Your task to perform on an android device: Open the web browser Image 0: 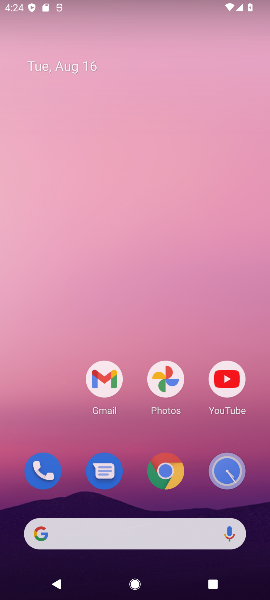
Step 0: drag from (200, 462) to (91, 10)
Your task to perform on an android device: Open the web browser Image 1: 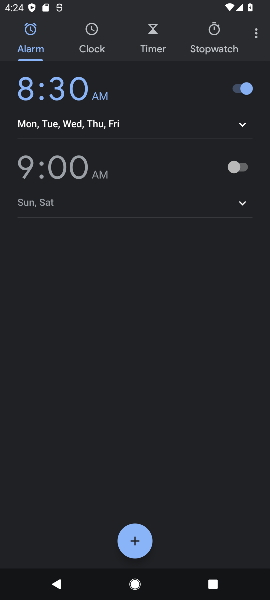
Step 1: press home button
Your task to perform on an android device: Open the web browser Image 2: 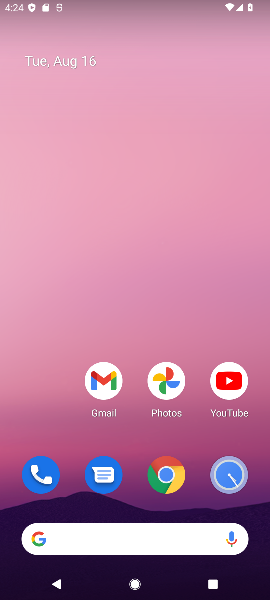
Step 2: drag from (247, 529) to (113, 33)
Your task to perform on an android device: Open the web browser Image 3: 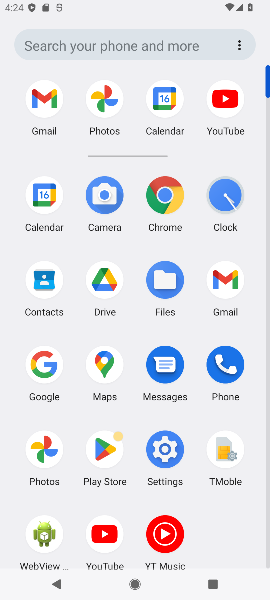
Step 3: click (61, 371)
Your task to perform on an android device: Open the web browser Image 4: 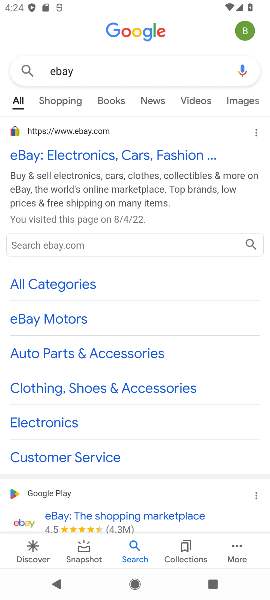
Step 4: press back button
Your task to perform on an android device: Open the web browser Image 5: 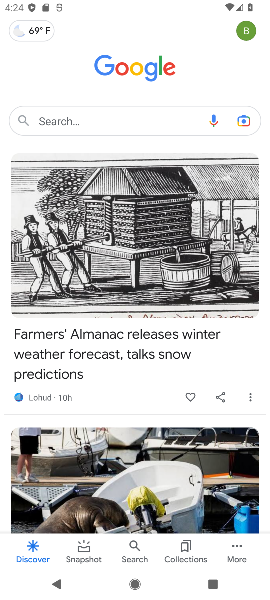
Step 5: click (66, 126)
Your task to perform on an android device: Open the web browser Image 6: 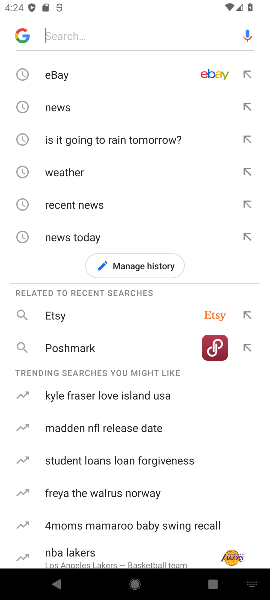
Step 6: type "web browser"
Your task to perform on an android device: Open the web browser Image 7: 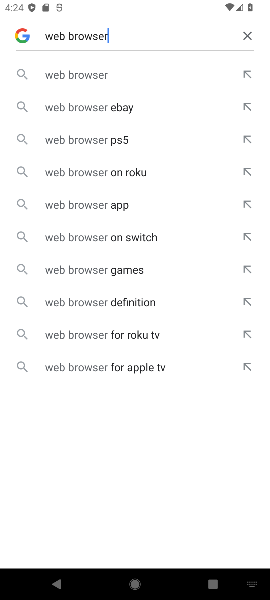
Step 7: click (71, 69)
Your task to perform on an android device: Open the web browser Image 8: 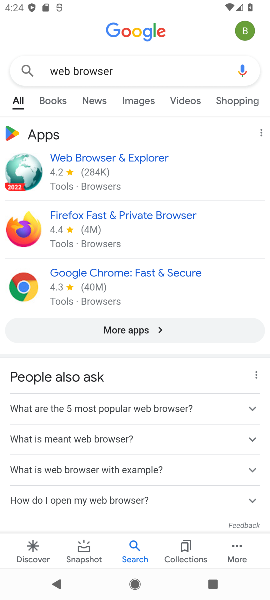
Step 8: task complete